Your task to perform on an android device: allow notifications from all sites in the chrome app Image 0: 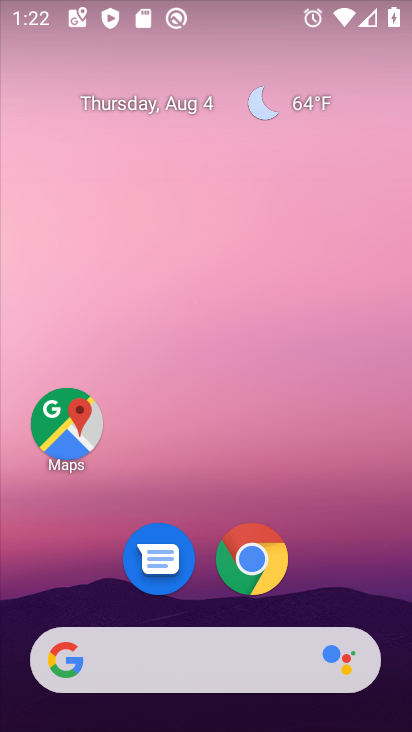
Step 0: click (247, 554)
Your task to perform on an android device: allow notifications from all sites in the chrome app Image 1: 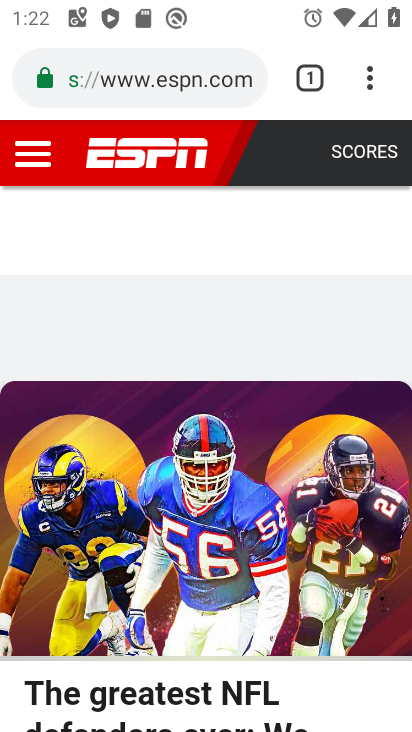
Step 1: click (370, 77)
Your task to perform on an android device: allow notifications from all sites in the chrome app Image 2: 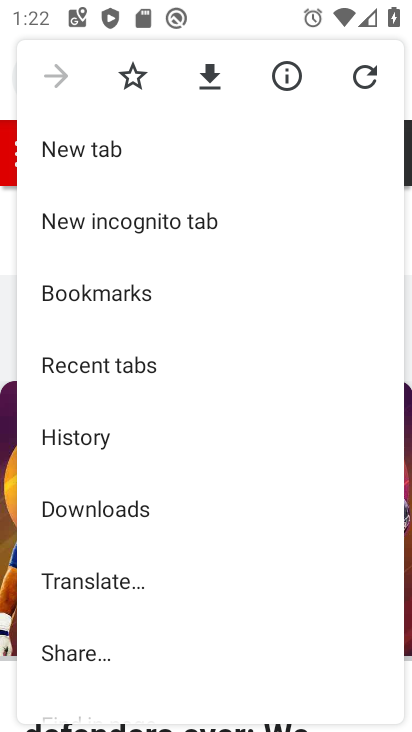
Step 2: drag from (130, 534) to (152, 451)
Your task to perform on an android device: allow notifications from all sites in the chrome app Image 3: 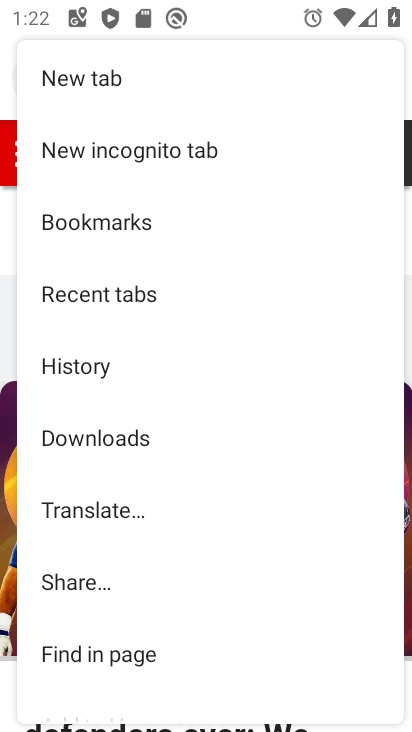
Step 3: drag from (135, 539) to (241, 421)
Your task to perform on an android device: allow notifications from all sites in the chrome app Image 4: 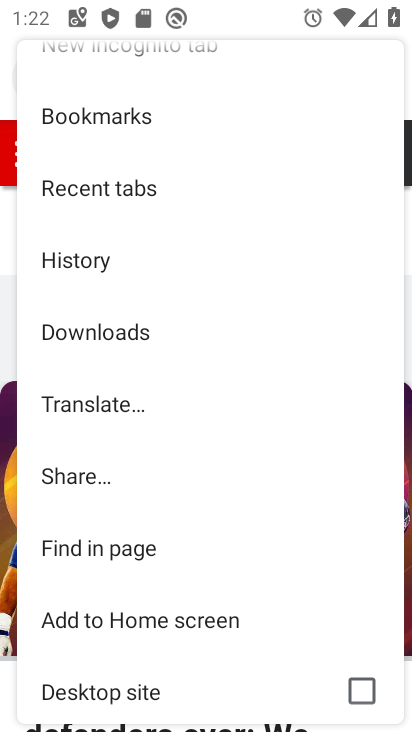
Step 4: drag from (168, 549) to (241, 459)
Your task to perform on an android device: allow notifications from all sites in the chrome app Image 5: 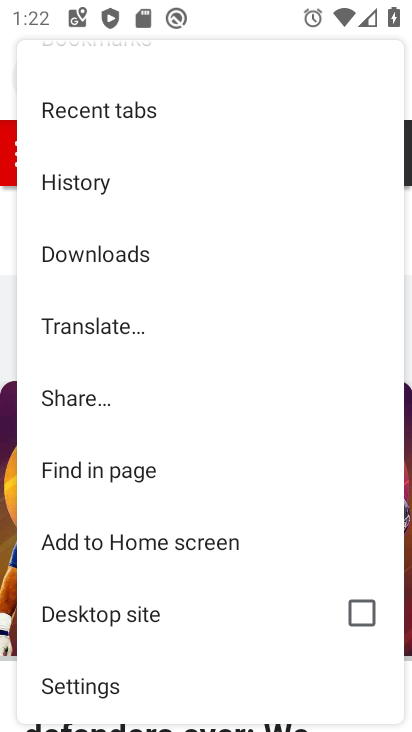
Step 5: drag from (172, 609) to (286, 466)
Your task to perform on an android device: allow notifications from all sites in the chrome app Image 6: 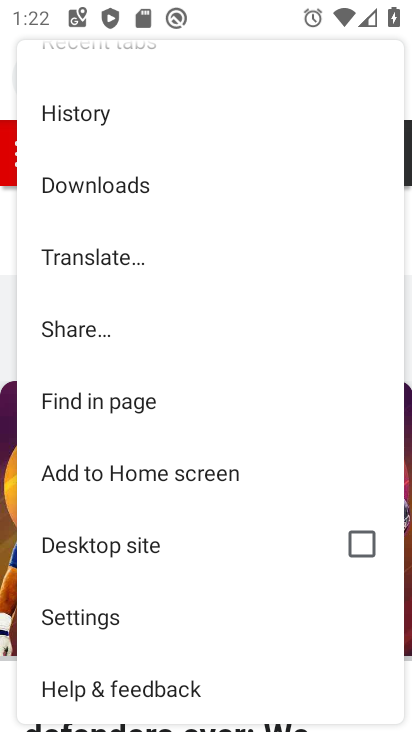
Step 6: click (101, 618)
Your task to perform on an android device: allow notifications from all sites in the chrome app Image 7: 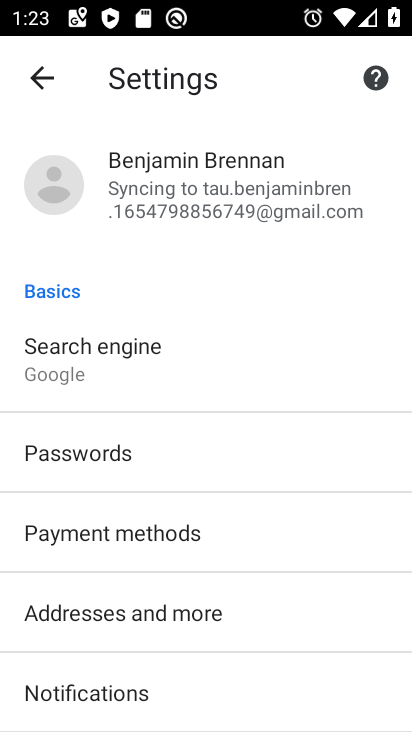
Step 7: click (117, 691)
Your task to perform on an android device: allow notifications from all sites in the chrome app Image 8: 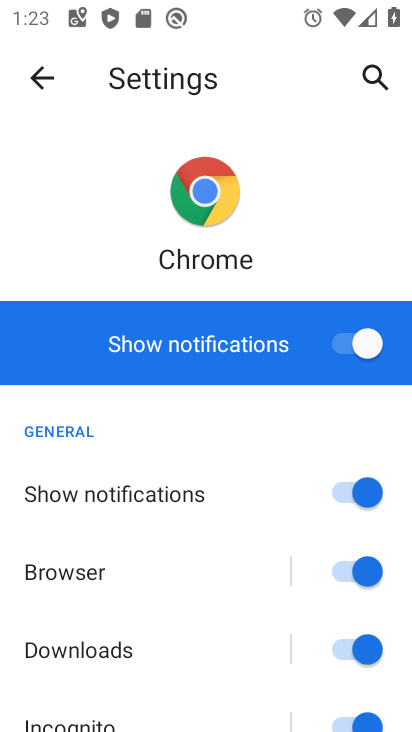
Step 8: task complete